Your task to perform on an android device: Go to Wikipedia Image 0: 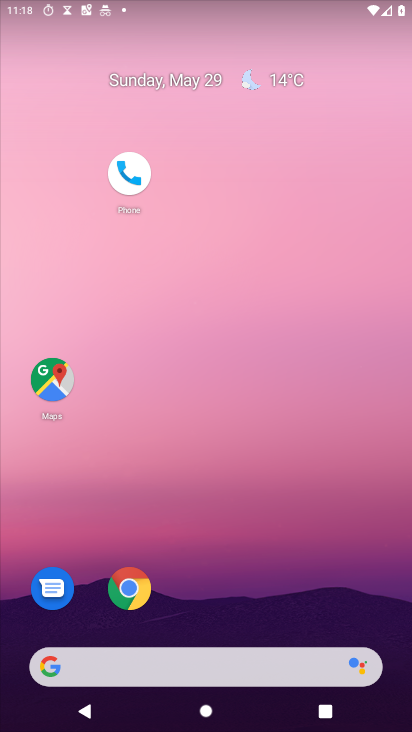
Step 0: drag from (263, 668) to (212, 149)
Your task to perform on an android device: Go to Wikipedia Image 1: 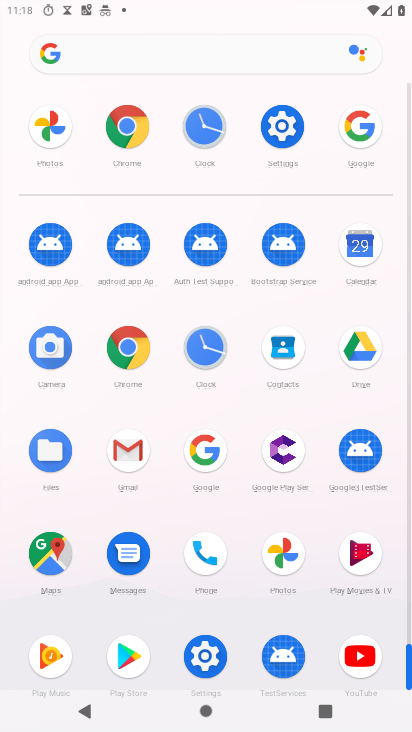
Step 1: click (115, 123)
Your task to perform on an android device: Go to Wikipedia Image 2: 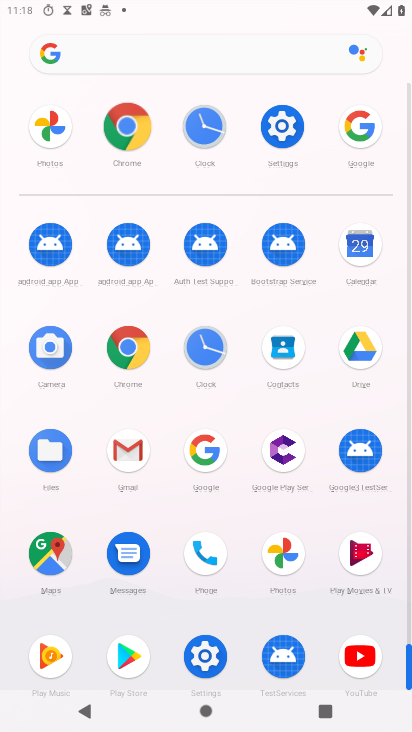
Step 2: click (120, 122)
Your task to perform on an android device: Go to Wikipedia Image 3: 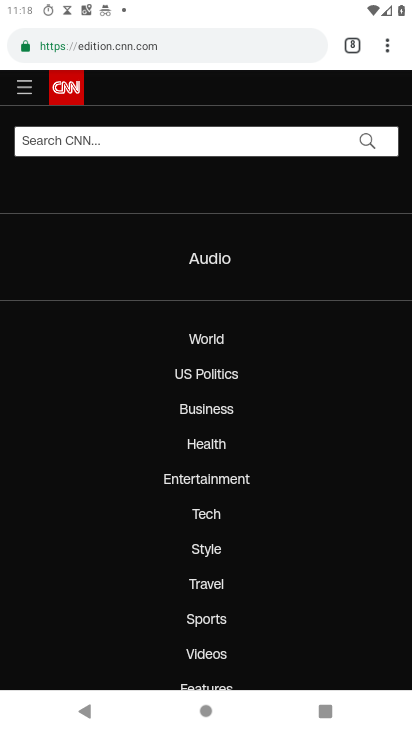
Step 3: drag from (390, 44) to (347, 136)
Your task to perform on an android device: Go to Wikipedia Image 4: 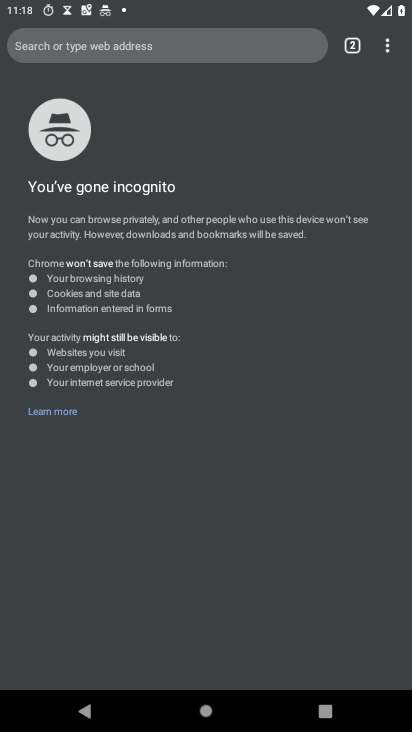
Step 4: click (396, 30)
Your task to perform on an android device: Go to Wikipedia Image 5: 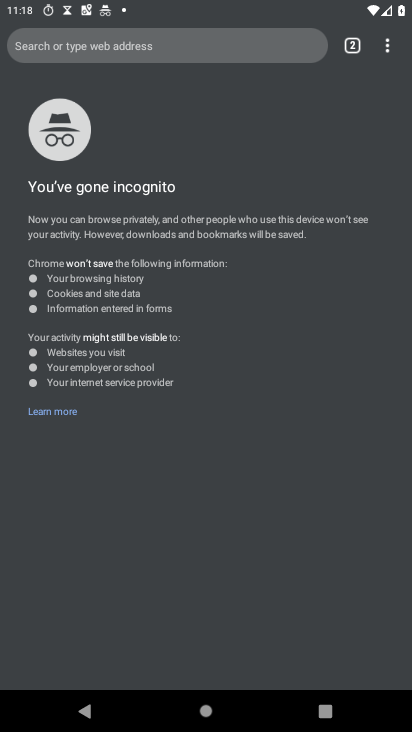
Step 5: drag from (386, 49) to (209, 90)
Your task to perform on an android device: Go to Wikipedia Image 6: 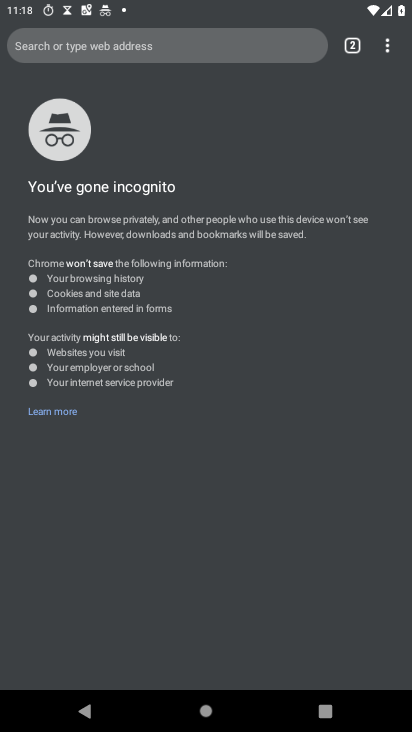
Step 6: click (209, 90)
Your task to perform on an android device: Go to Wikipedia Image 7: 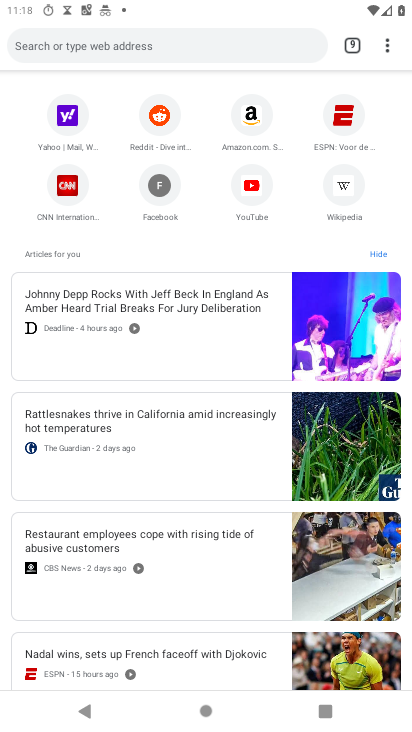
Step 7: click (346, 190)
Your task to perform on an android device: Go to Wikipedia Image 8: 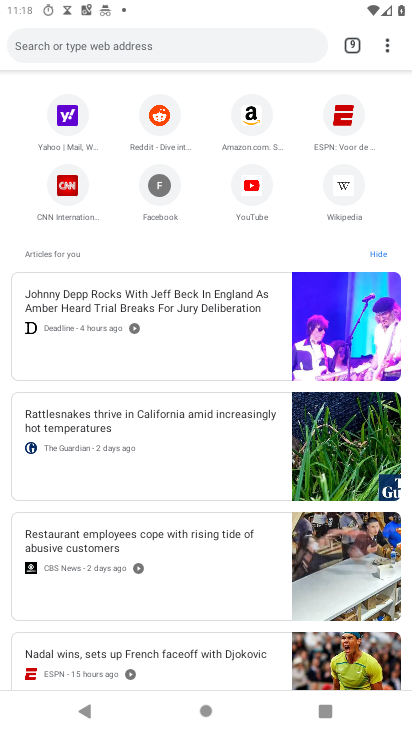
Step 8: click (347, 185)
Your task to perform on an android device: Go to Wikipedia Image 9: 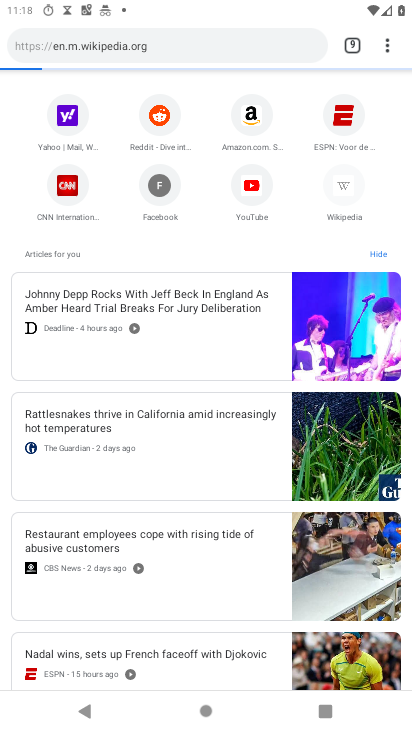
Step 9: click (344, 182)
Your task to perform on an android device: Go to Wikipedia Image 10: 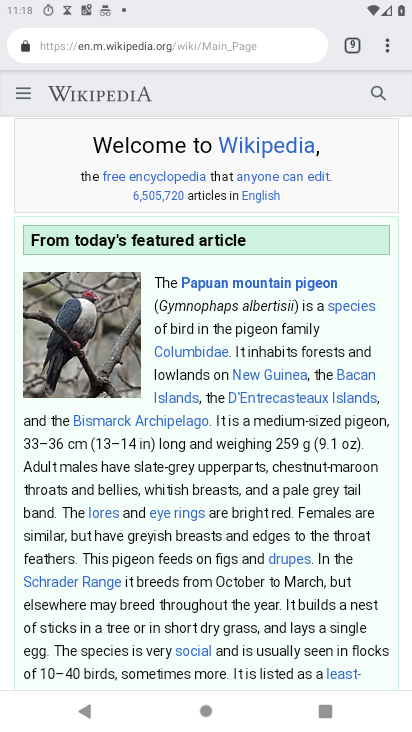
Step 10: task complete